Your task to perform on an android device: allow cookies in the chrome app Image 0: 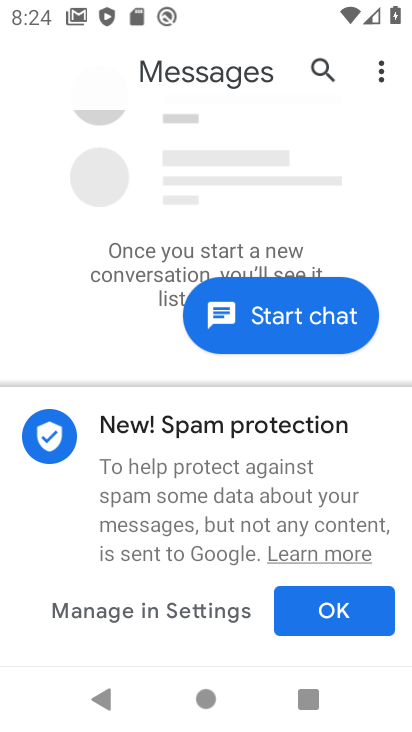
Step 0: press home button
Your task to perform on an android device: allow cookies in the chrome app Image 1: 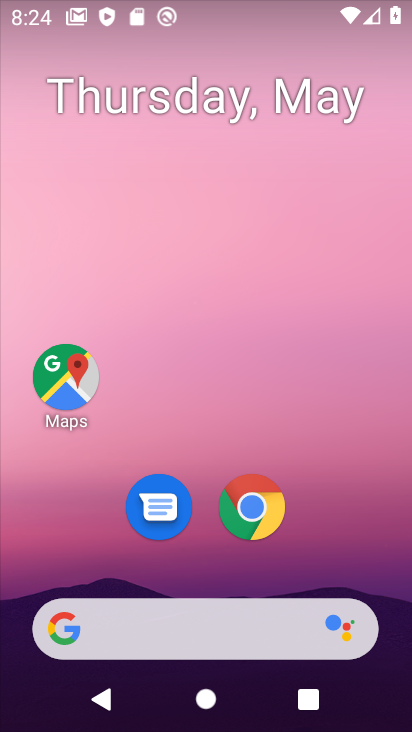
Step 1: click (252, 509)
Your task to perform on an android device: allow cookies in the chrome app Image 2: 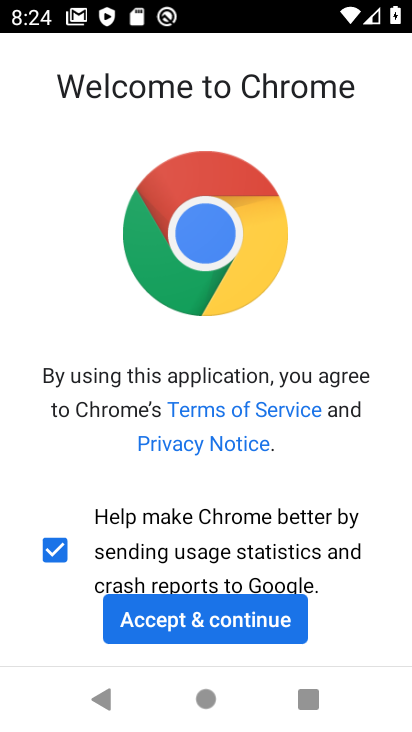
Step 2: click (251, 605)
Your task to perform on an android device: allow cookies in the chrome app Image 3: 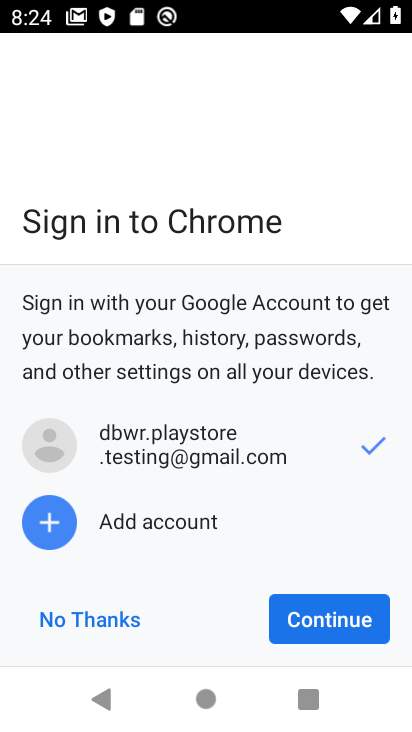
Step 3: click (304, 615)
Your task to perform on an android device: allow cookies in the chrome app Image 4: 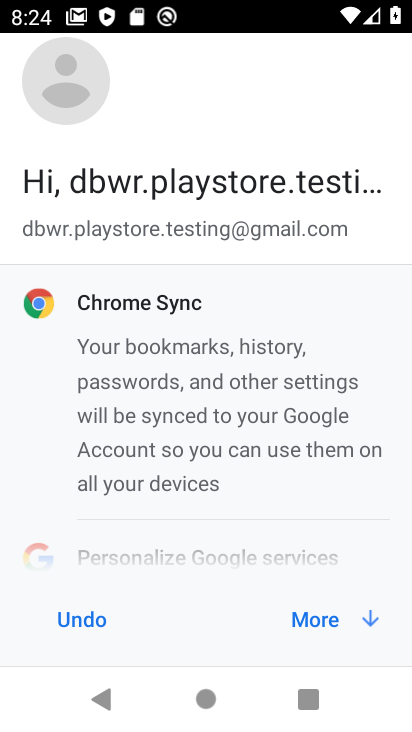
Step 4: click (337, 621)
Your task to perform on an android device: allow cookies in the chrome app Image 5: 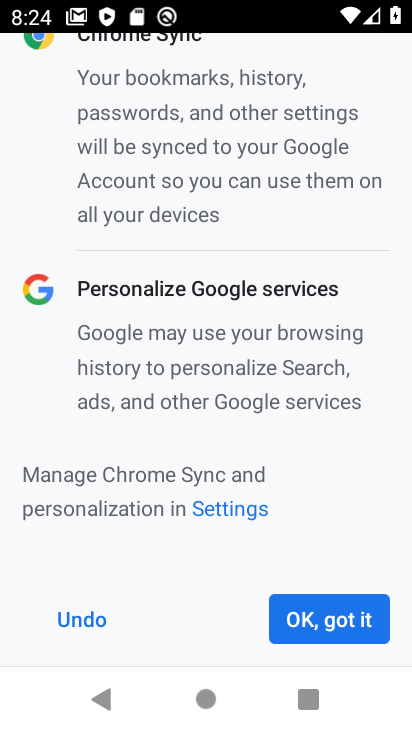
Step 5: click (333, 616)
Your task to perform on an android device: allow cookies in the chrome app Image 6: 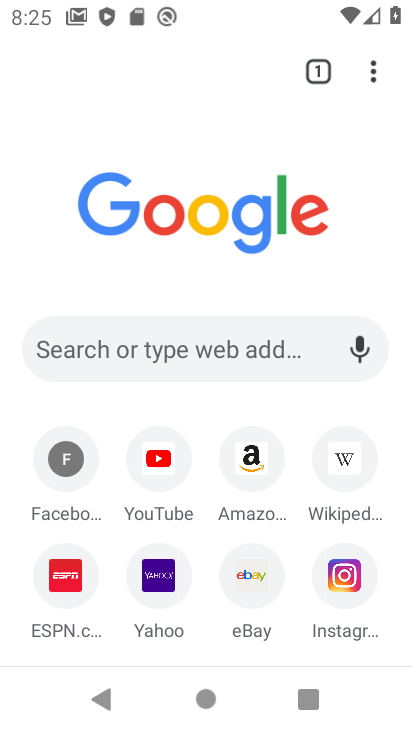
Step 6: click (374, 80)
Your task to perform on an android device: allow cookies in the chrome app Image 7: 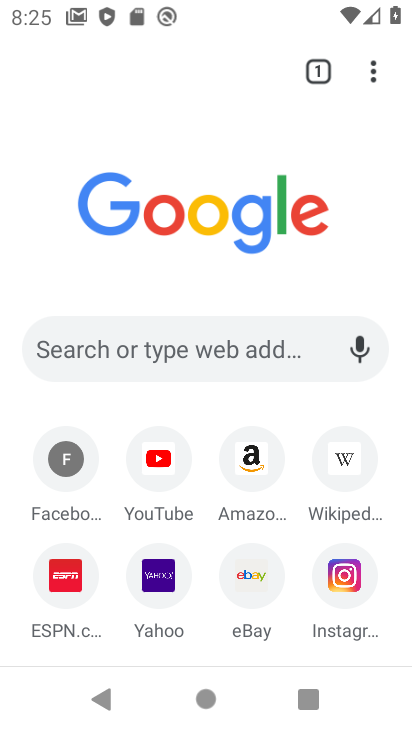
Step 7: click (369, 71)
Your task to perform on an android device: allow cookies in the chrome app Image 8: 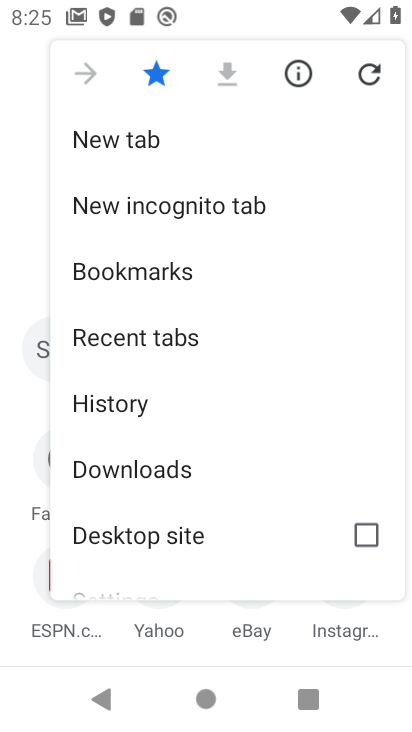
Step 8: drag from (280, 483) to (281, 142)
Your task to perform on an android device: allow cookies in the chrome app Image 9: 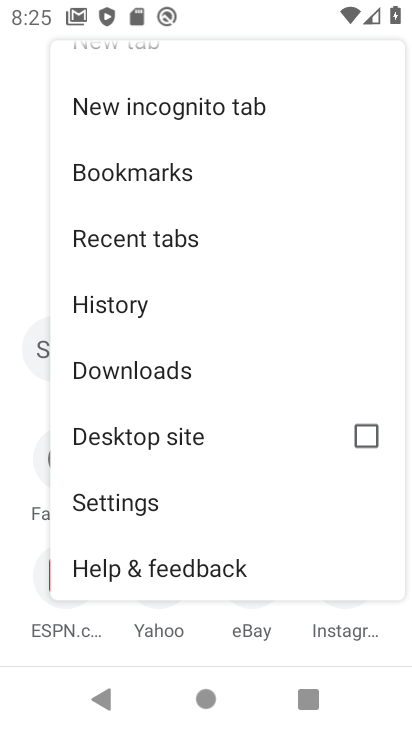
Step 9: click (240, 500)
Your task to perform on an android device: allow cookies in the chrome app Image 10: 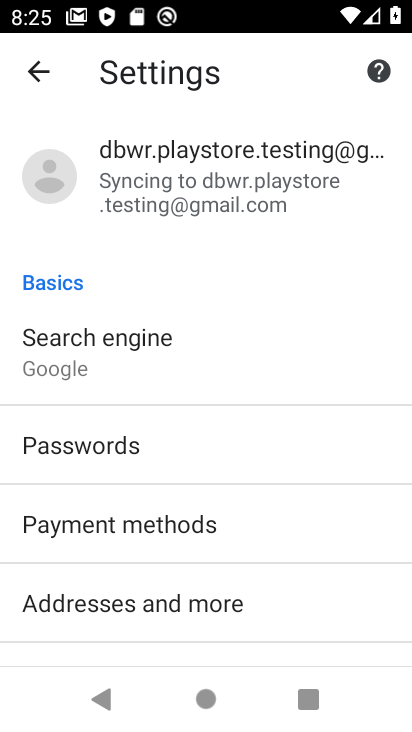
Step 10: drag from (217, 516) to (232, 107)
Your task to perform on an android device: allow cookies in the chrome app Image 11: 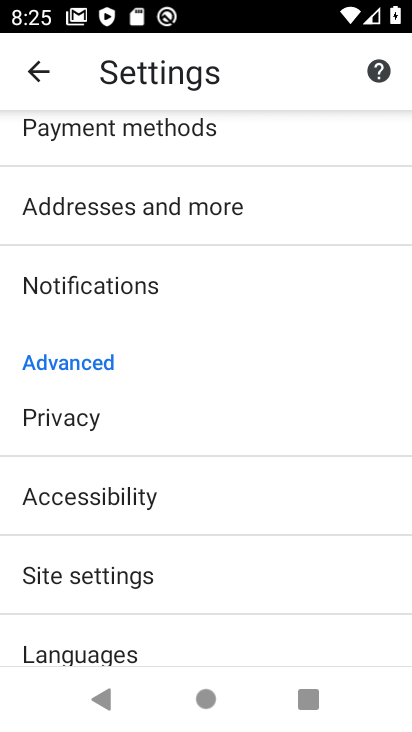
Step 11: drag from (218, 479) to (227, 150)
Your task to perform on an android device: allow cookies in the chrome app Image 12: 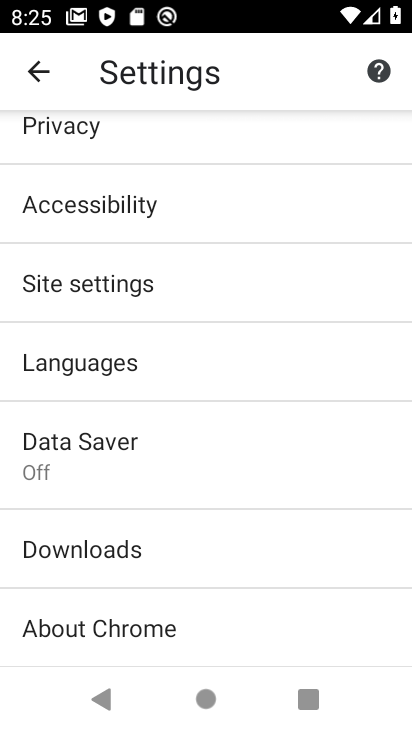
Step 12: click (141, 298)
Your task to perform on an android device: allow cookies in the chrome app Image 13: 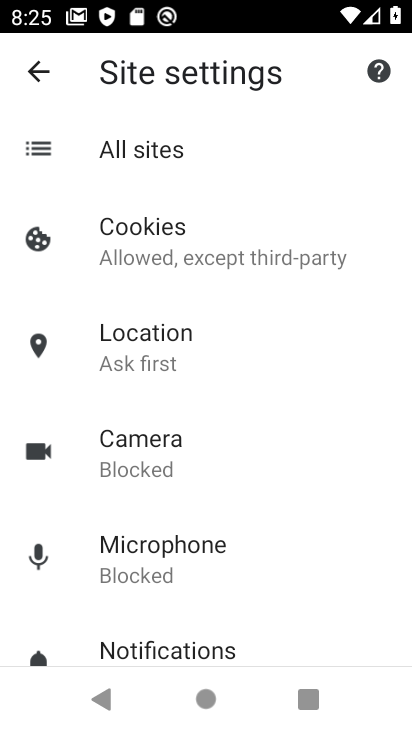
Step 13: click (249, 254)
Your task to perform on an android device: allow cookies in the chrome app Image 14: 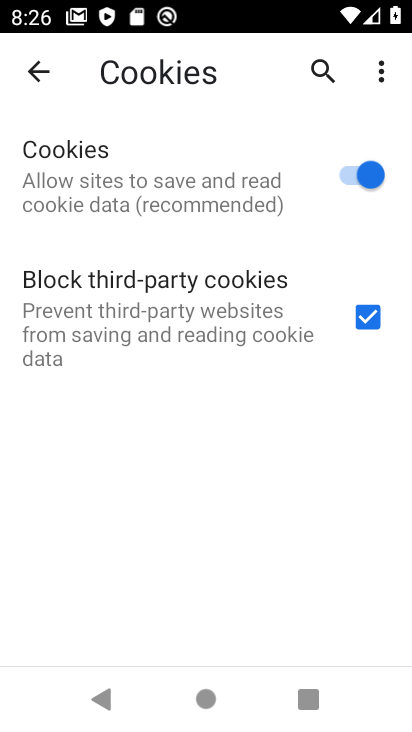
Step 14: task complete